Your task to perform on an android device: Open notification settings Image 0: 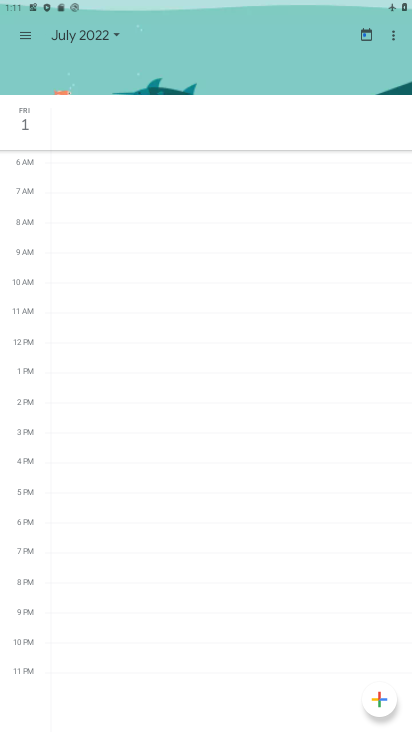
Step 0: press home button
Your task to perform on an android device: Open notification settings Image 1: 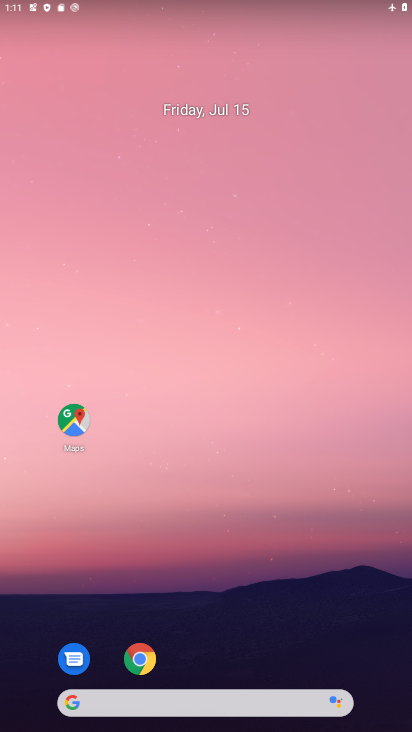
Step 1: drag from (203, 655) to (203, 232)
Your task to perform on an android device: Open notification settings Image 2: 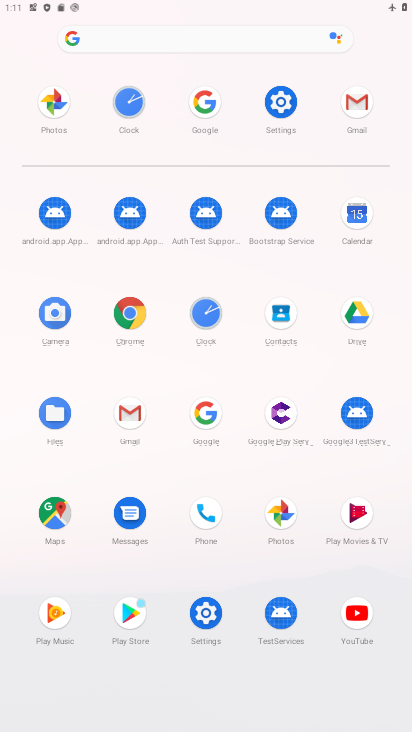
Step 2: click (295, 111)
Your task to perform on an android device: Open notification settings Image 3: 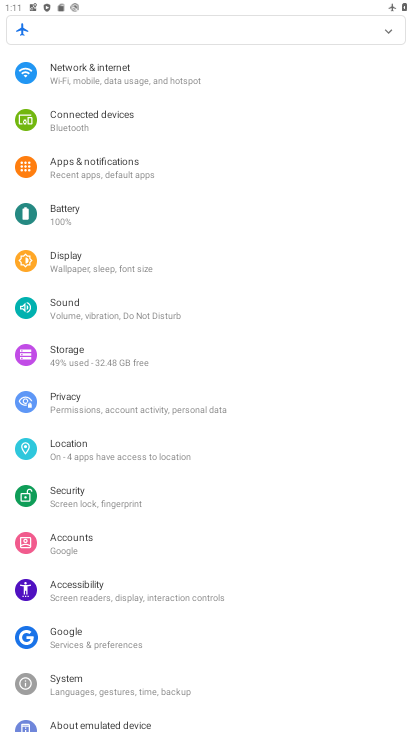
Step 3: click (161, 158)
Your task to perform on an android device: Open notification settings Image 4: 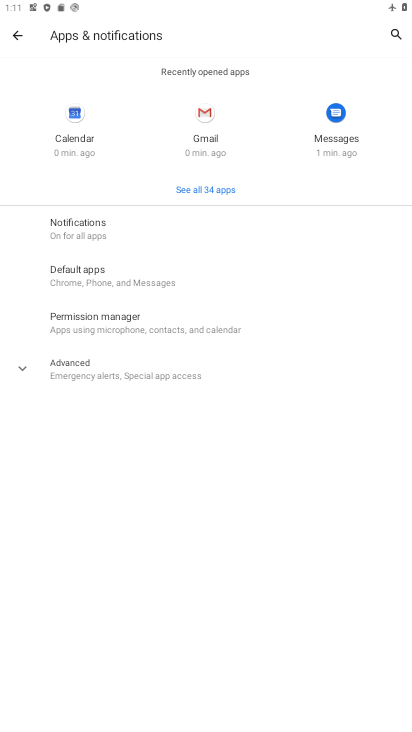
Step 4: click (90, 228)
Your task to perform on an android device: Open notification settings Image 5: 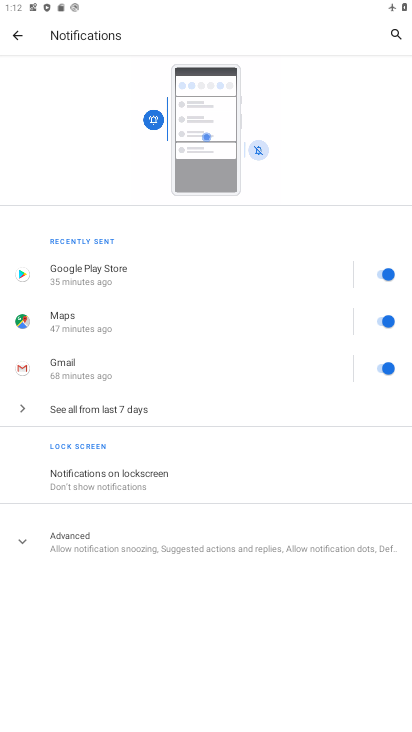
Step 5: task complete